Your task to perform on an android device: toggle javascript in the chrome app Image 0: 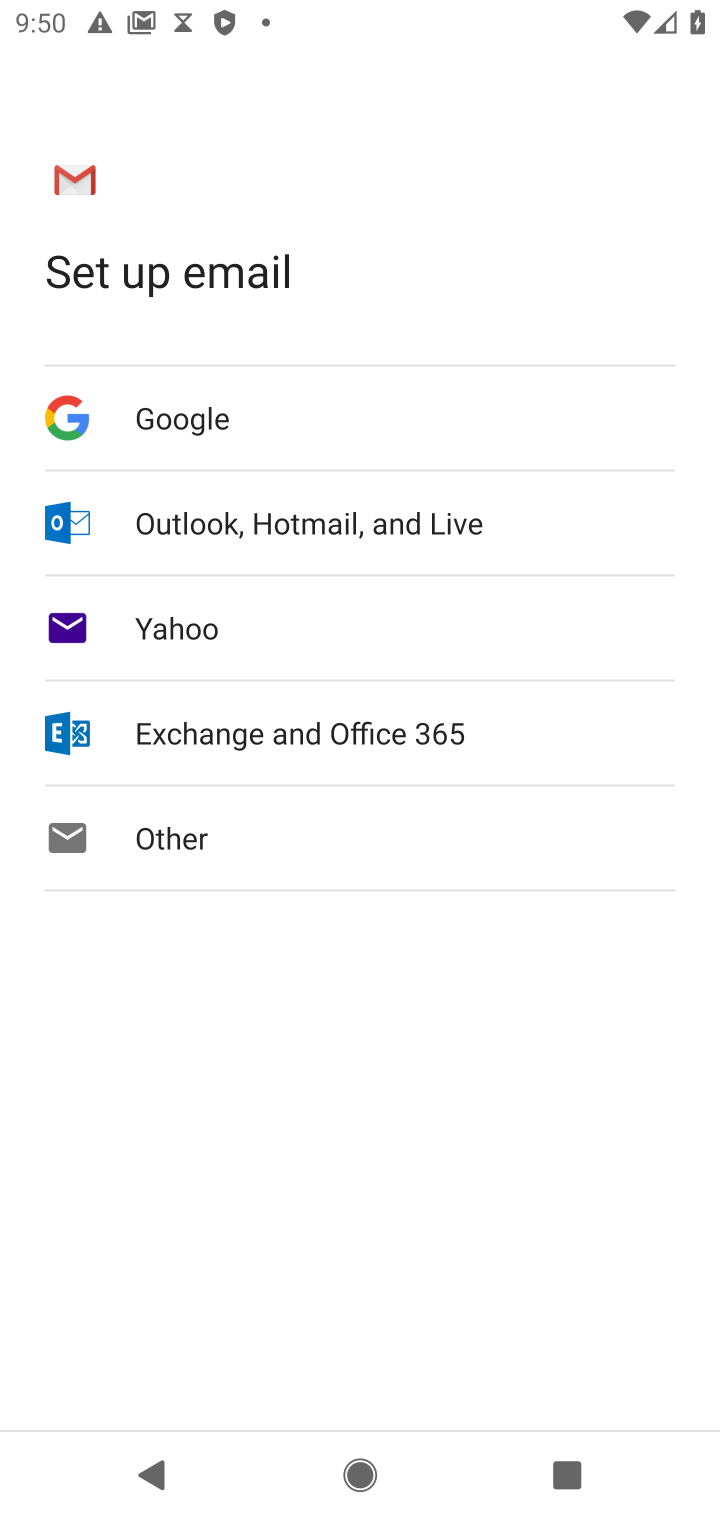
Step 0: press home button
Your task to perform on an android device: toggle javascript in the chrome app Image 1: 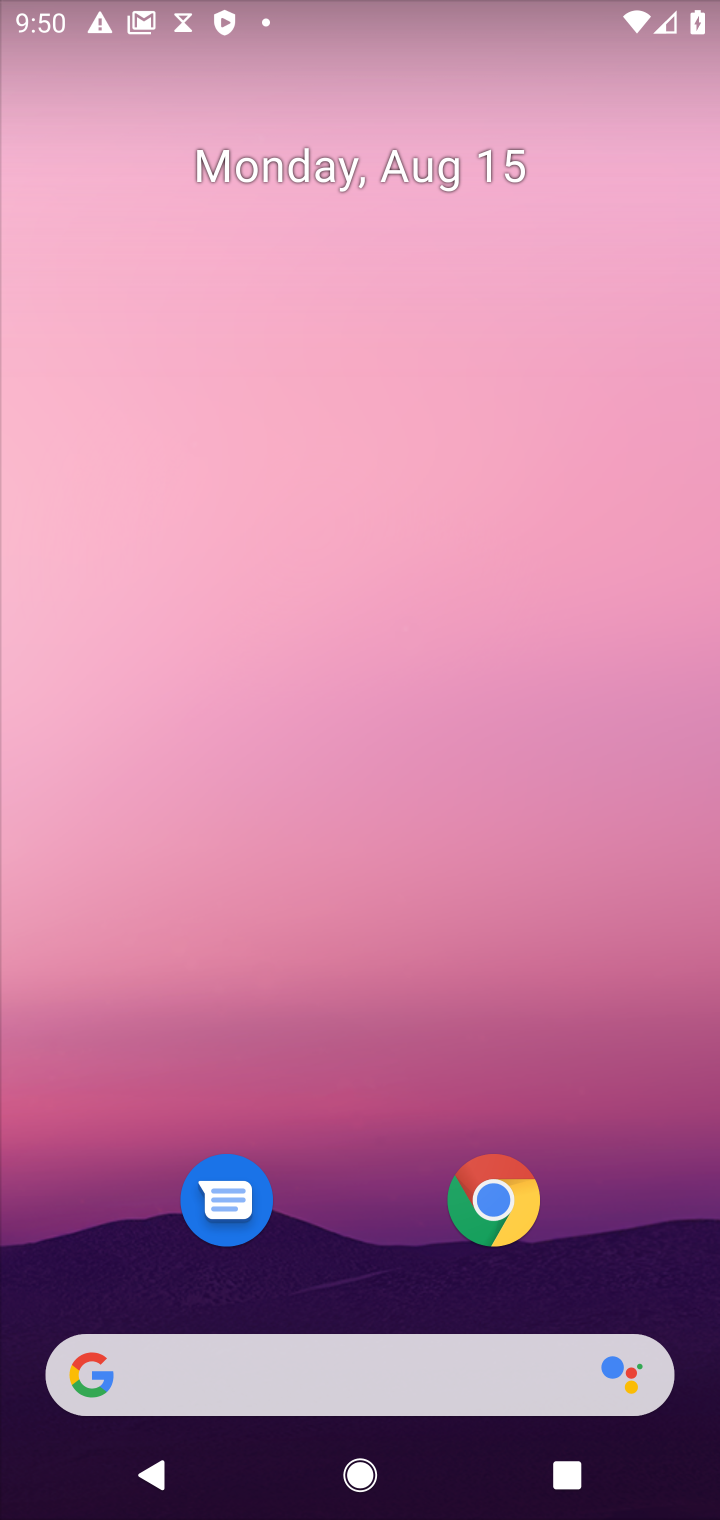
Step 1: click (496, 1176)
Your task to perform on an android device: toggle javascript in the chrome app Image 2: 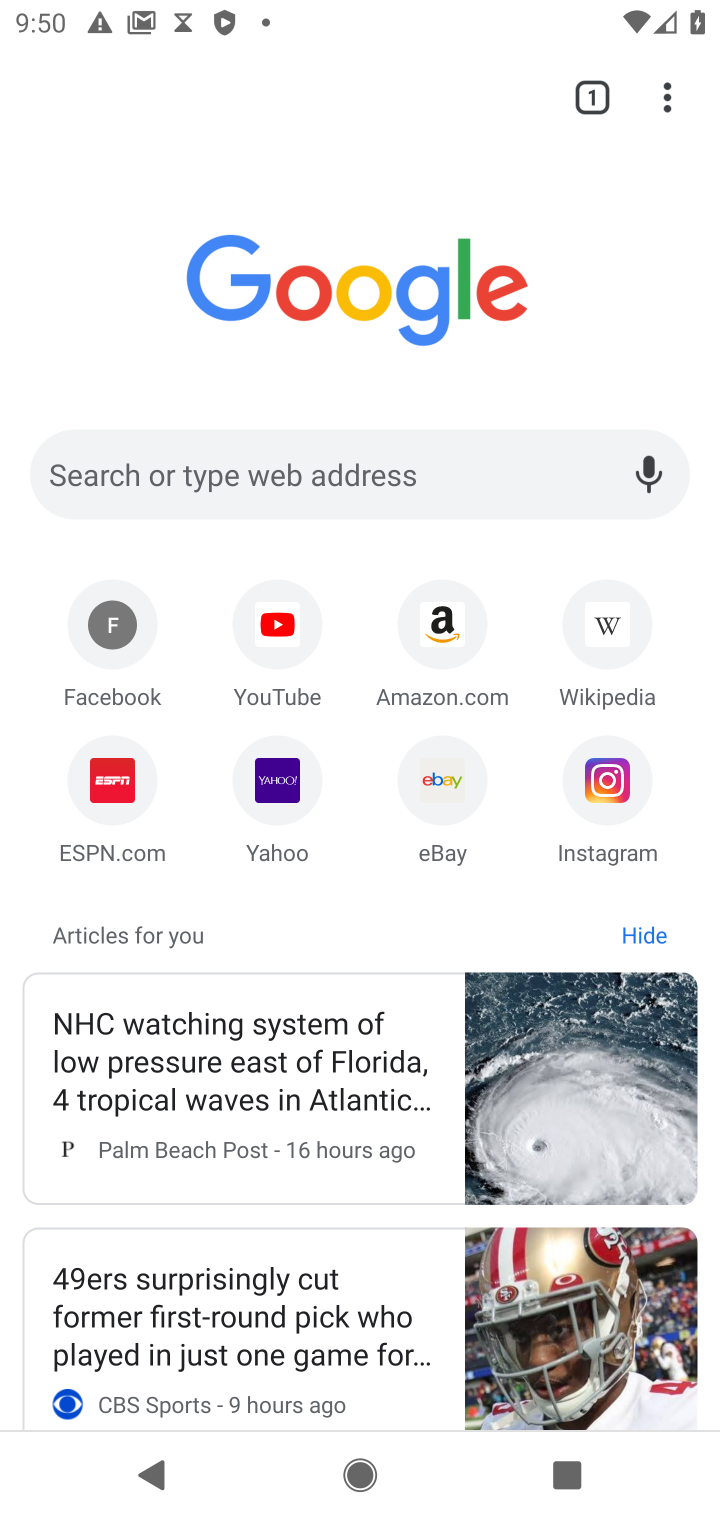
Step 2: click (712, 87)
Your task to perform on an android device: toggle javascript in the chrome app Image 3: 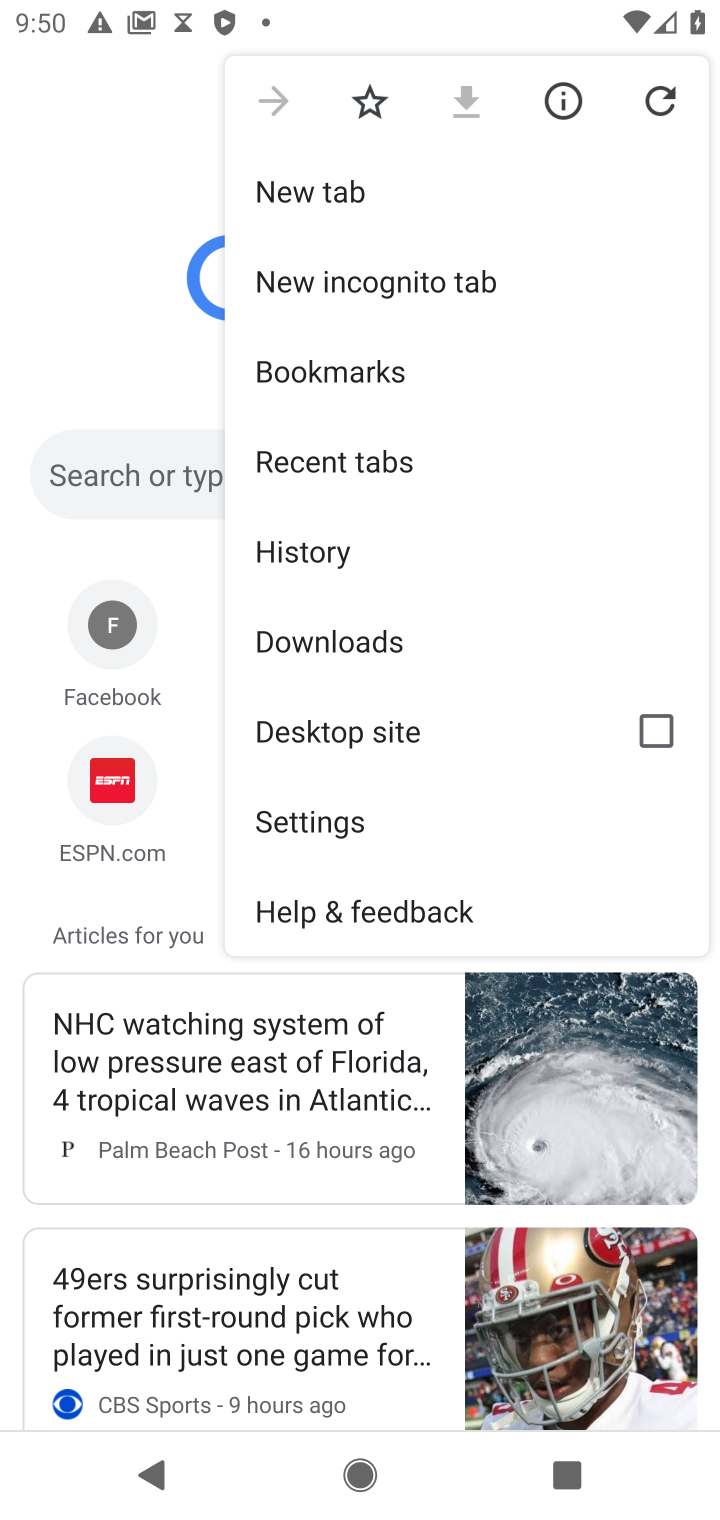
Step 3: click (320, 835)
Your task to perform on an android device: toggle javascript in the chrome app Image 4: 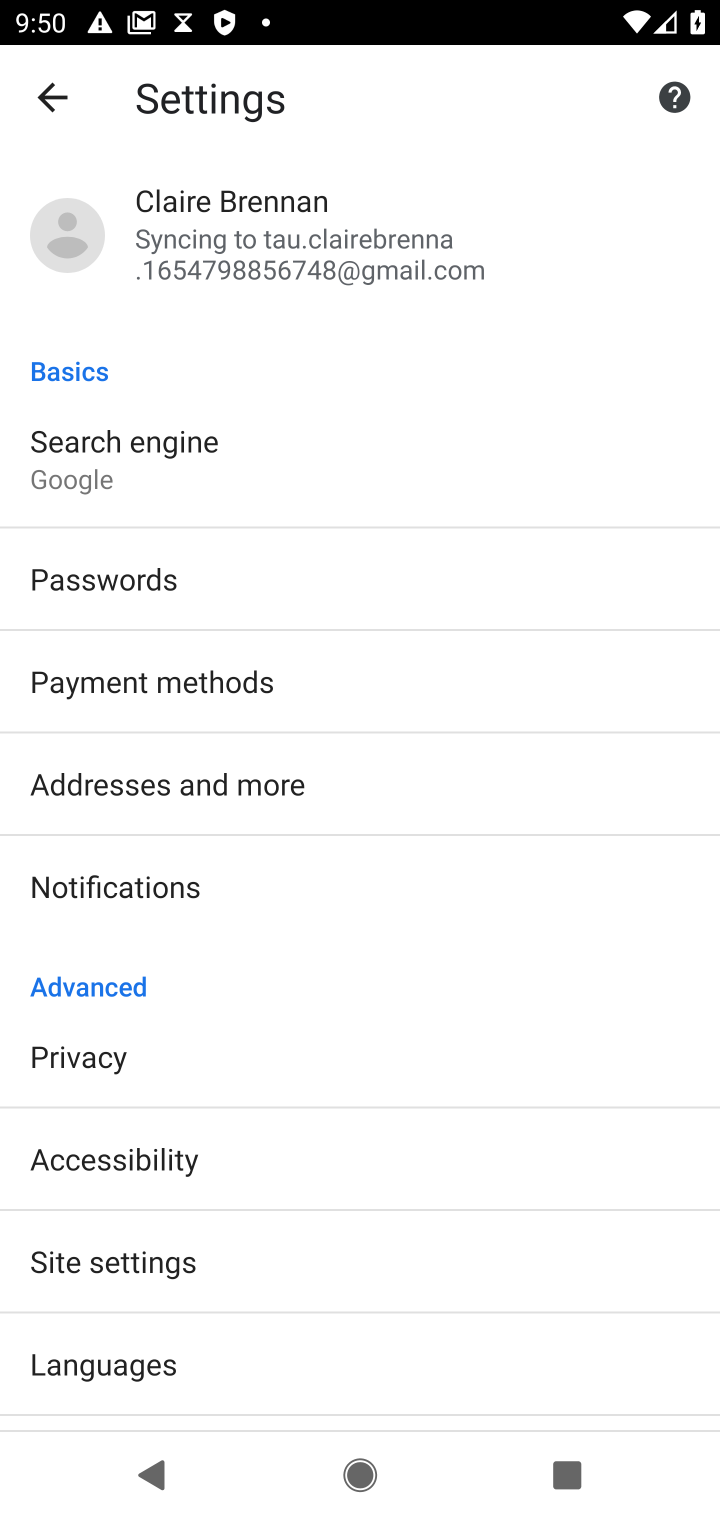
Step 4: click (361, 1267)
Your task to perform on an android device: toggle javascript in the chrome app Image 5: 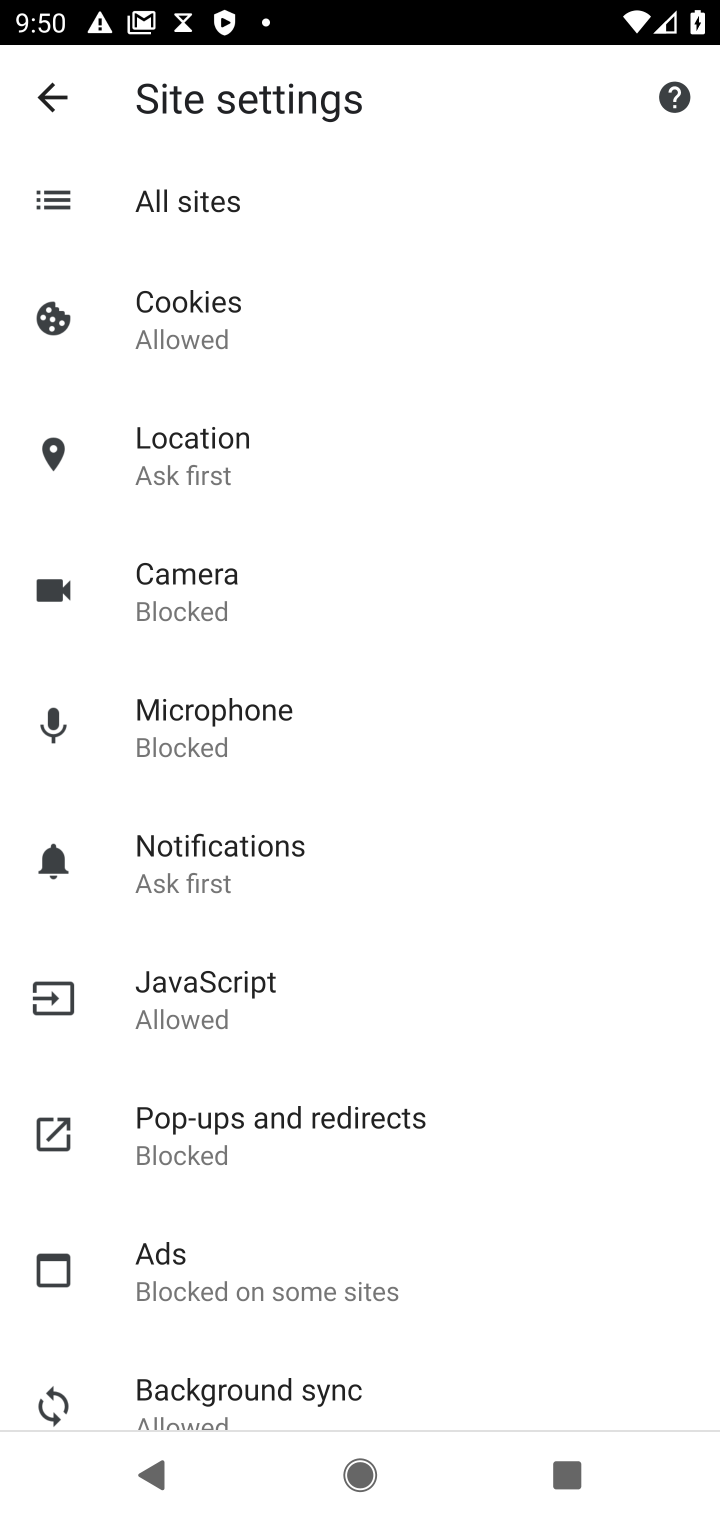
Step 5: click (321, 983)
Your task to perform on an android device: toggle javascript in the chrome app Image 6: 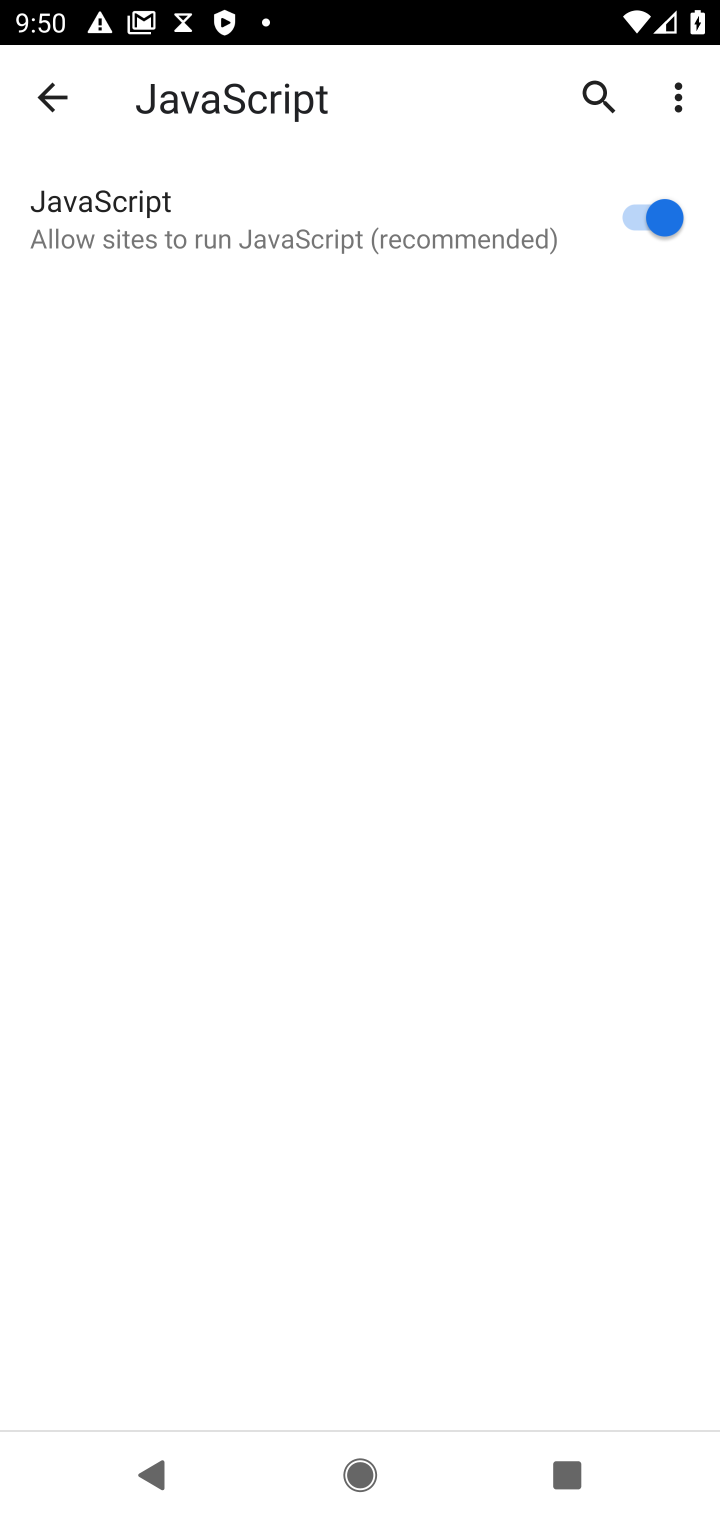
Step 6: click (618, 218)
Your task to perform on an android device: toggle javascript in the chrome app Image 7: 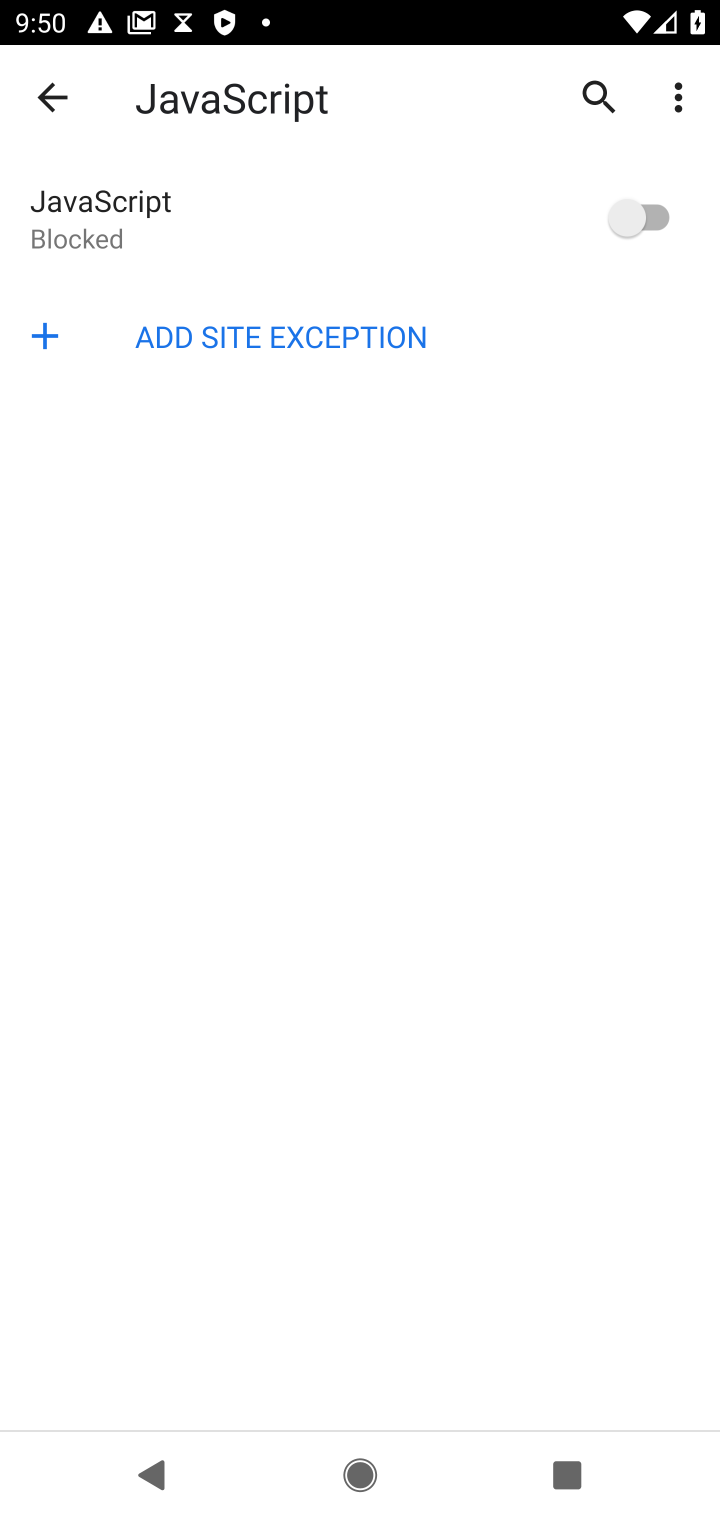
Step 7: task complete